Your task to perform on an android device: Go to Google maps Image 0: 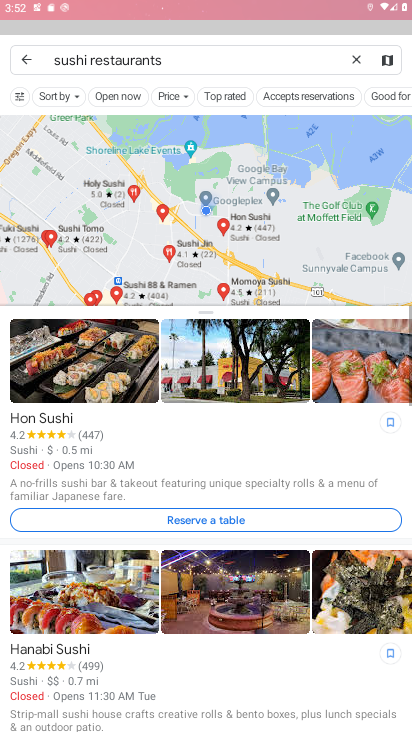
Step 0: click (378, 3)
Your task to perform on an android device: Go to Google maps Image 1: 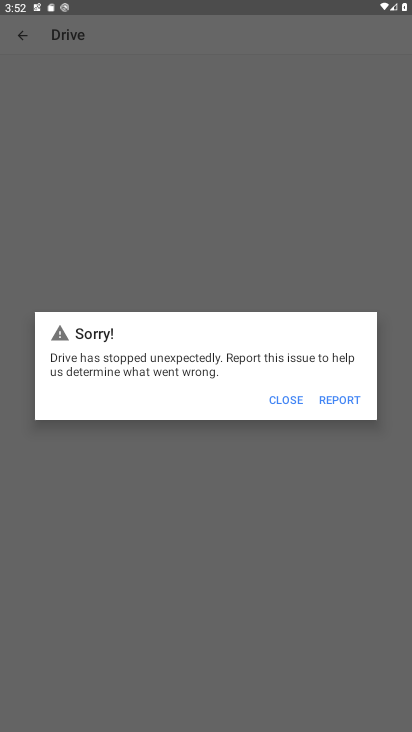
Step 1: press home button
Your task to perform on an android device: Go to Google maps Image 2: 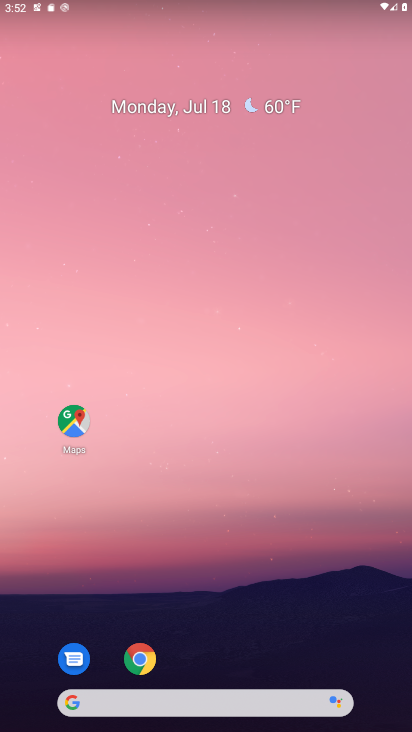
Step 2: drag from (195, 719) to (327, 18)
Your task to perform on an android device: Go to Google maps Image 3: 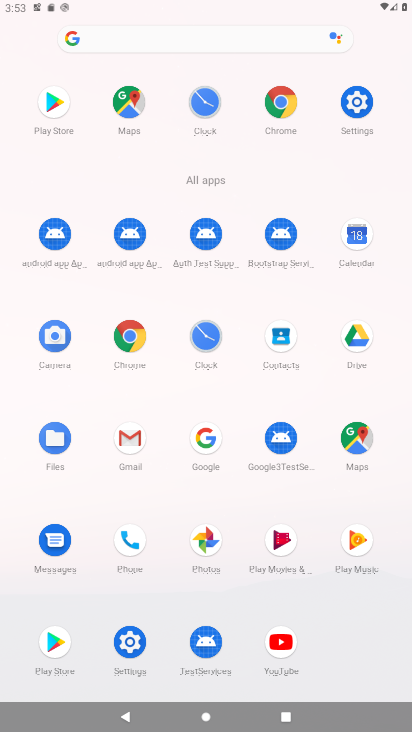
Step 3: click (366, 442)
Your task to perform on an android device: Go to Google maps Image 4: 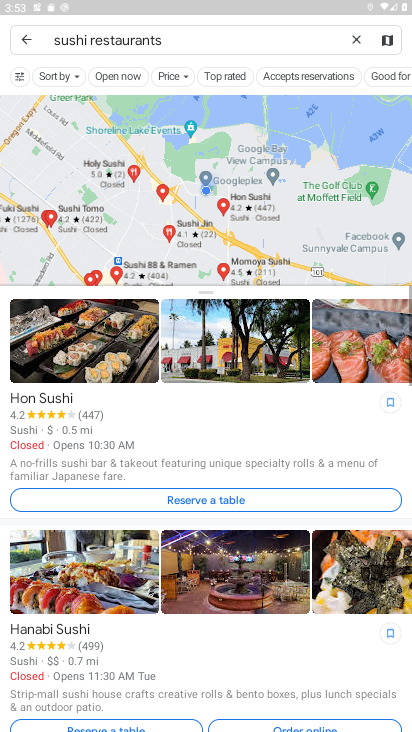
Step 4: task complete